Your task to perform on an android device: Go to Maps Image 0: 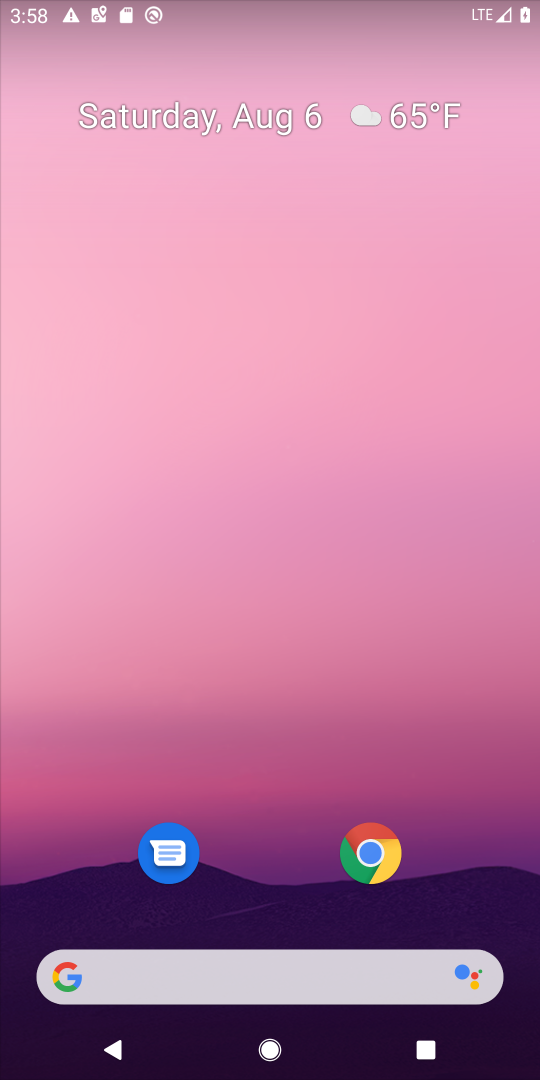
Step 0: drag from (144, 884) to (266, 37)
Your task to perform on an android device: Go to Maps Image 1: 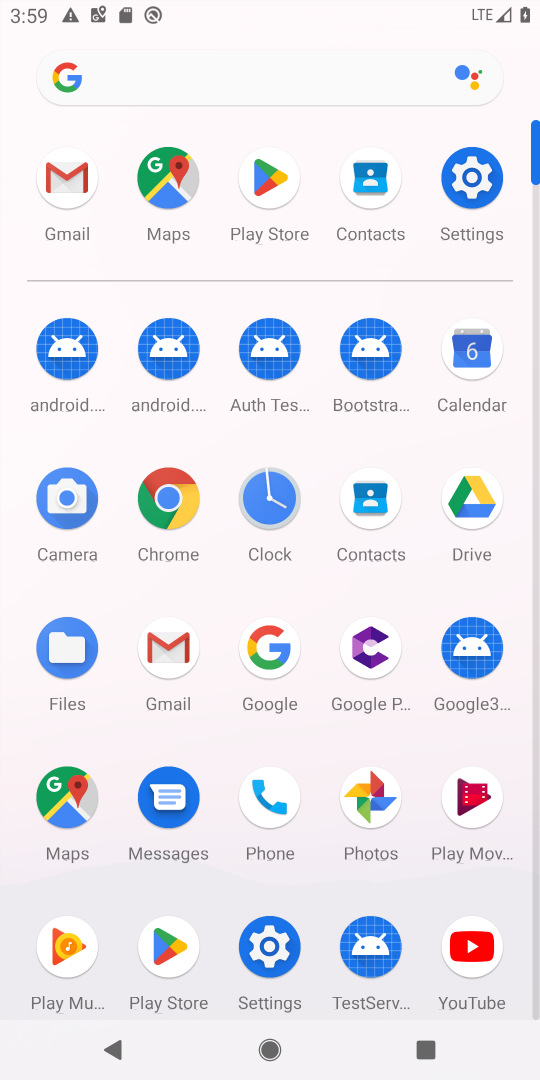
Step 1: click (165, 168)
Your task to perform on an android device: Go to Maps Image 2: 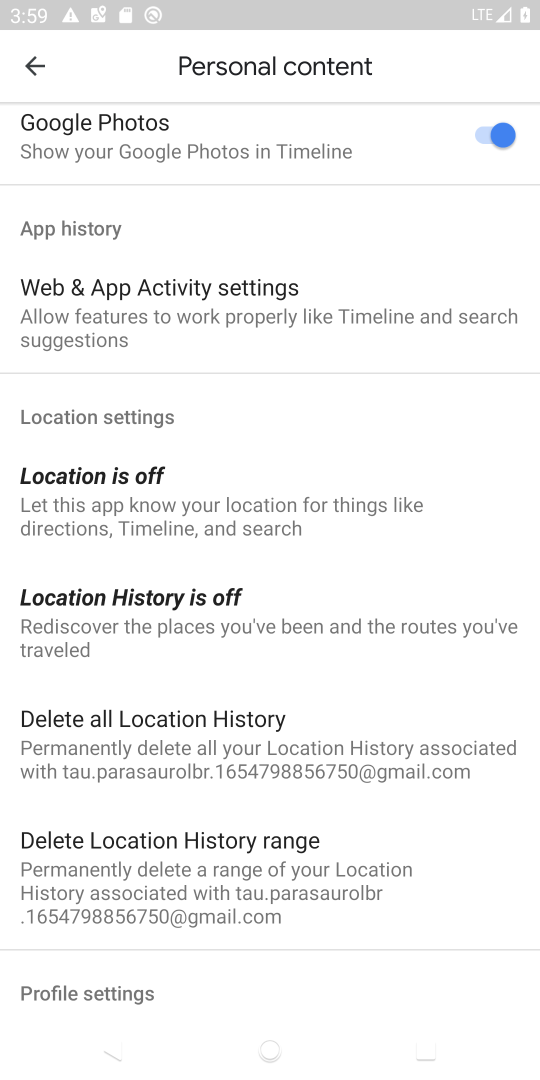
Step 2: click (30, 62)
Your task to perform on an android device: Go to Maps Image 3: 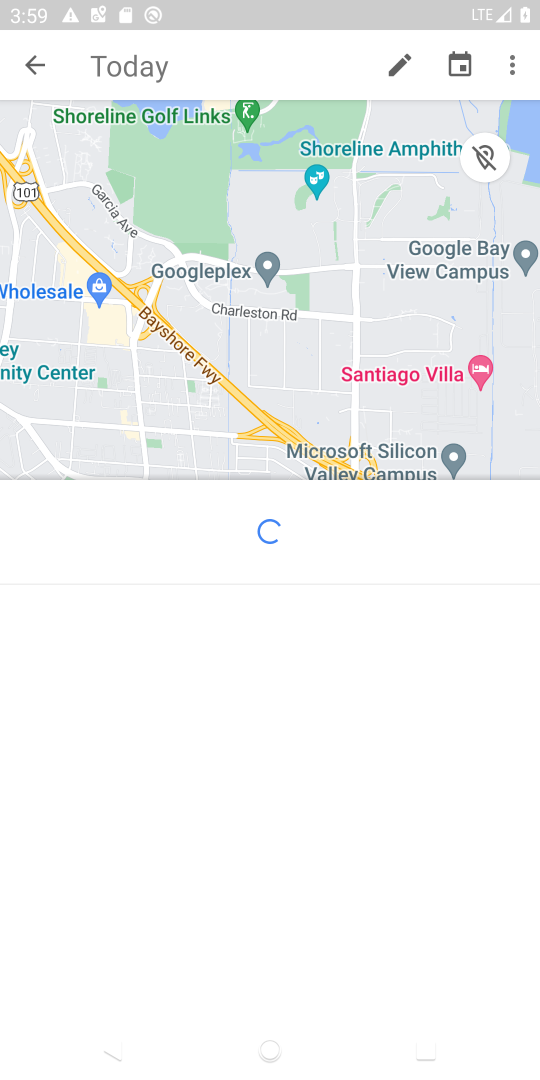
Step 3: click (35, 67)
Your task to perform on an android device: Go to Maps Image 4: 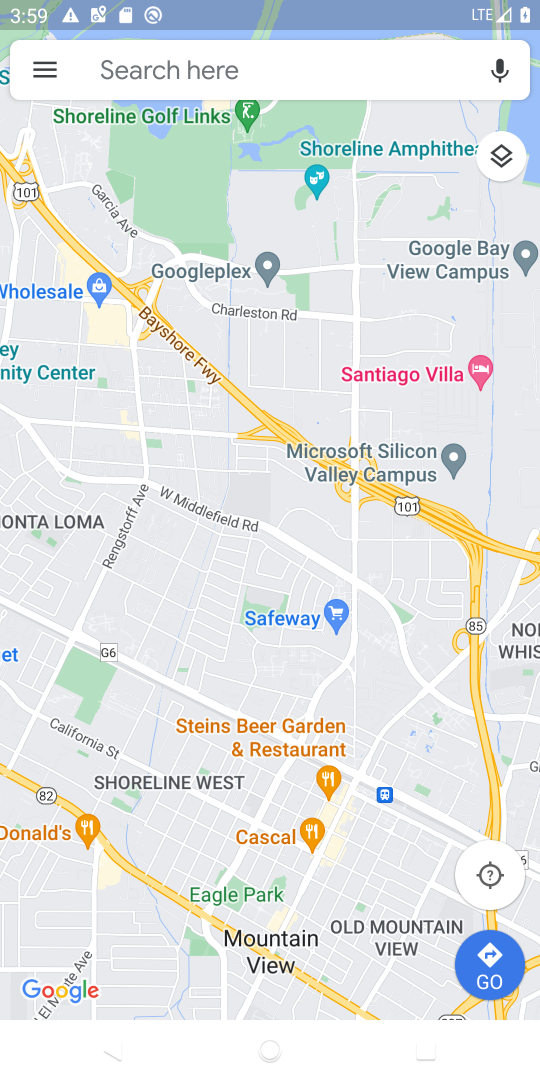
Step 4: task complete